Your task to perform on an android device: Show me popular videos on Youtube Image 0: 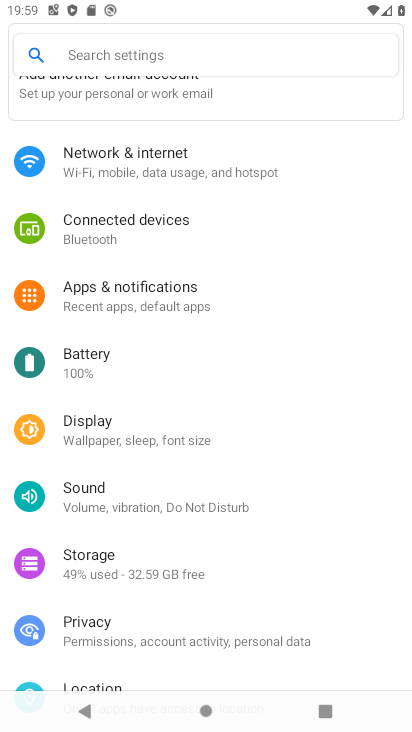
Step 0: press home button
Your task to perform on an android device: Show me popular videos on Youtube Image 1: 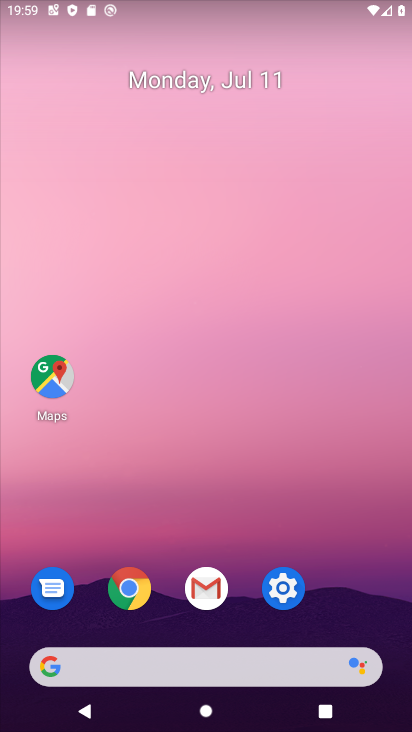
Step 1: drag from (250, 694) to (216, 222)
Your task to perform on an android device: Show me popular videos on Youtube Image 2: 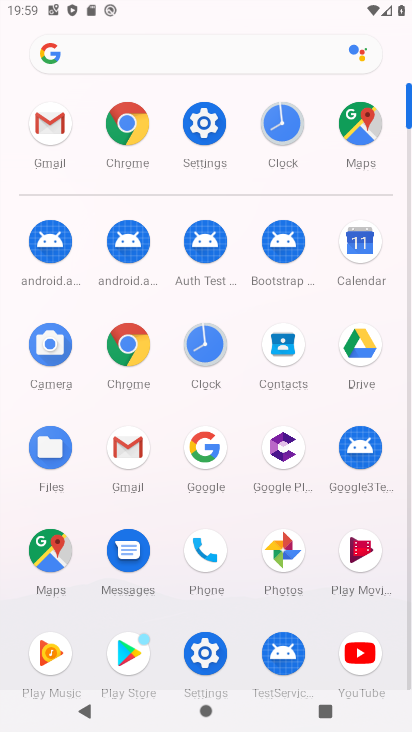
Step 2: click (349, 657)
Your task to perform on an android device: Show me popular videos on Youtube Image 3: 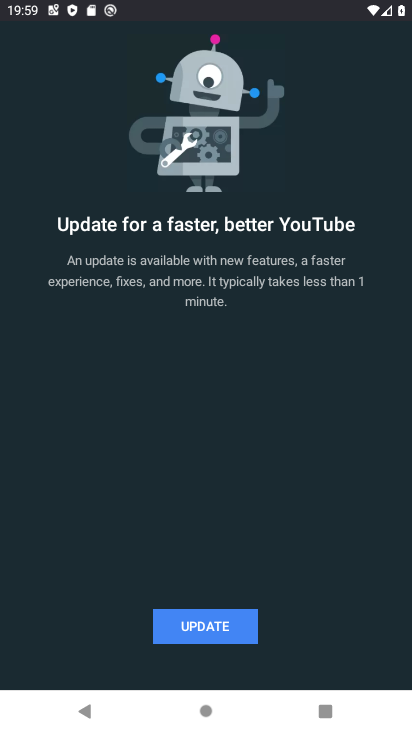
Step 3: click (203, 627)
Your task to perform on an android device: Show me popular videos on Youtube Image 4: 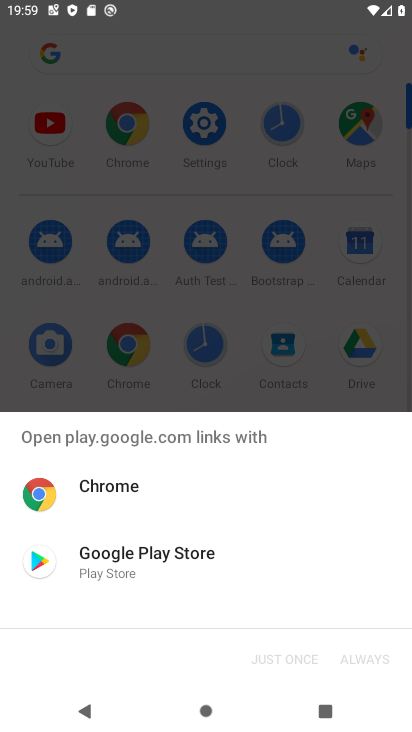
Step 4: click (160, 549)
Your task to perform on an android device: Show me popular videos on Youtube Image 5: 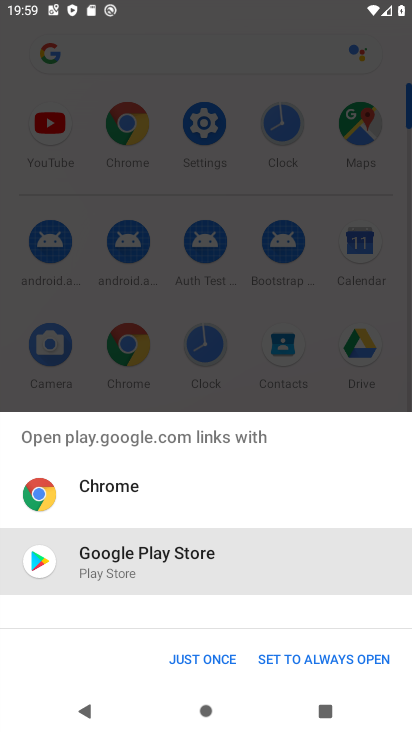
Step 5: click (192, 663)
Your task to perform on an android device: Show me popular videos on Youtube Image 6: 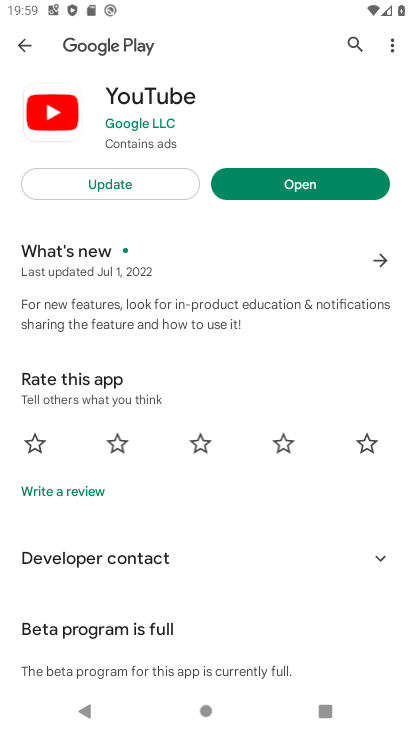
Step 6: click (107, 175)
Your task to perform on an android device: Show me popular videos on Youtube Image 7: 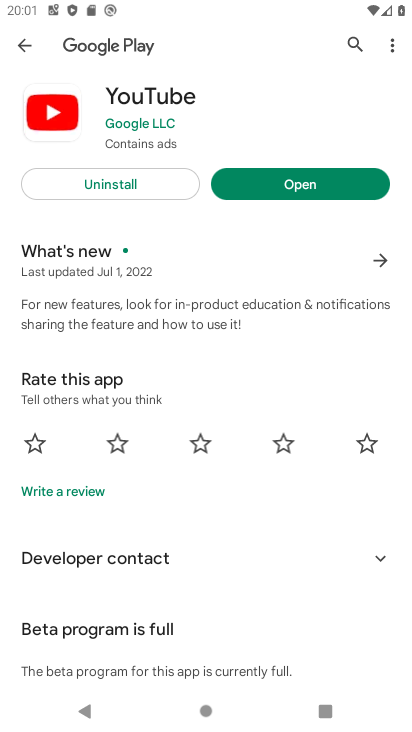
Step 7: click (331, 170)
Your task to perform on an android device: Show me popular videos on Youtube Image 8: 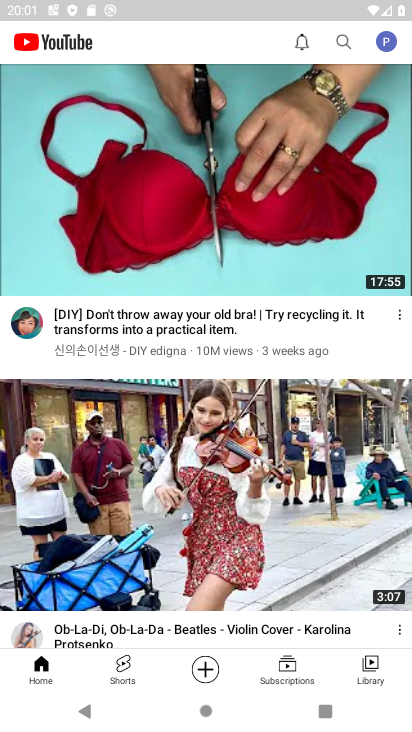
Step 8: click (345, 42)
Your task to perform on an android device: Show me popular videos on Youtube Image 9: 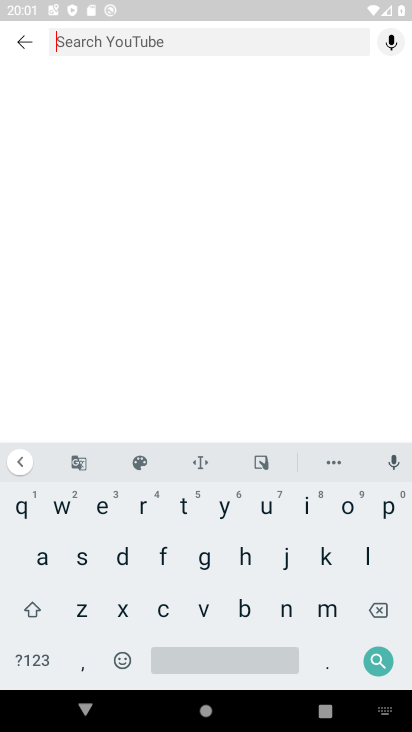
Step 9: click (380, 502)
Your task to perform on an android device: Show me popular videos on Youtube Image 10: 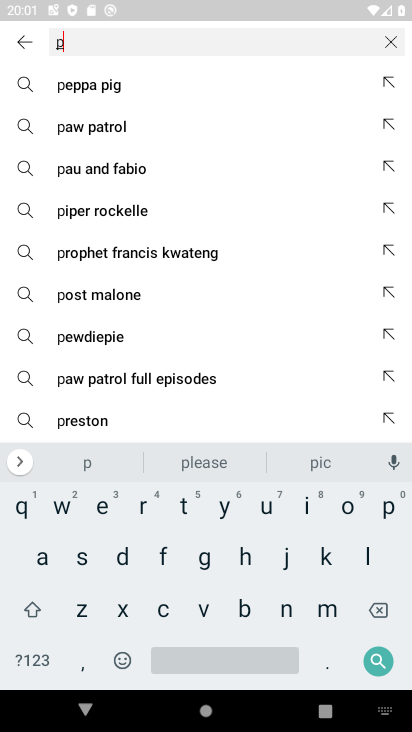
Step 10: click (346, 508)
Your task to perform on an android device: Show me popular videos on Youtube Image 11: 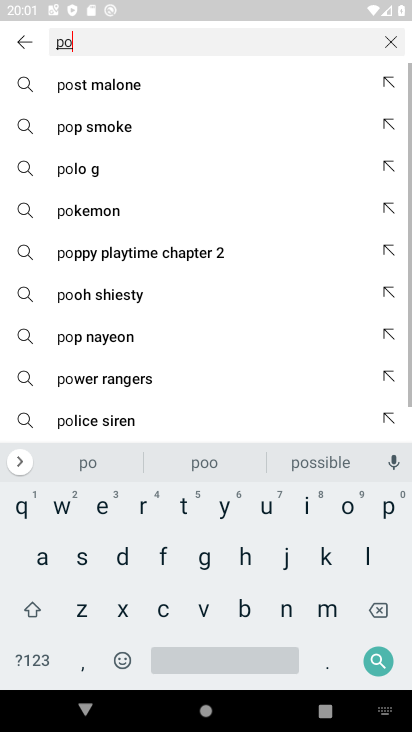
Step 11: click (389, 508)
Your task to perform on an android device: Show me popular videos on Youtube Image 12: 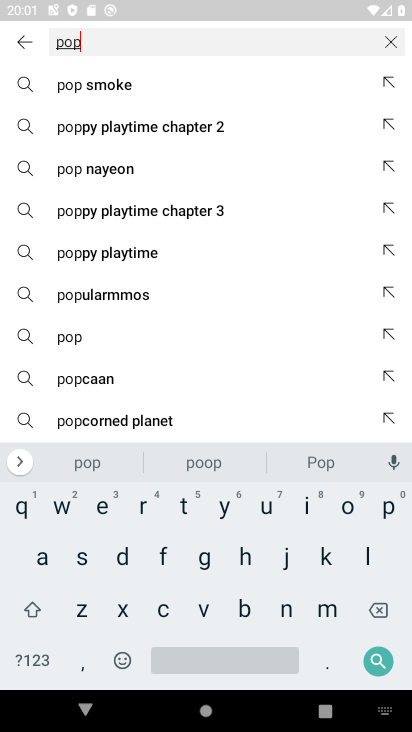
Step 12: click (264, 509)
Your task to perform on an android device: Show me popular videos on Youtube Image 13: 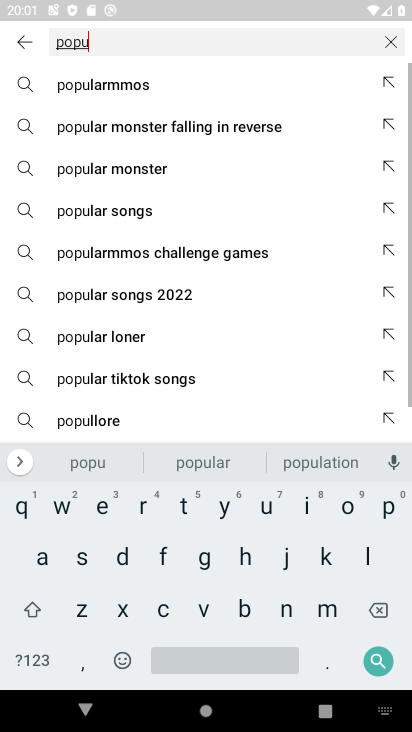
Step 13: click (207, 462)
Your task to perform on an android device: Show me popular videos on Youtube Image 14: 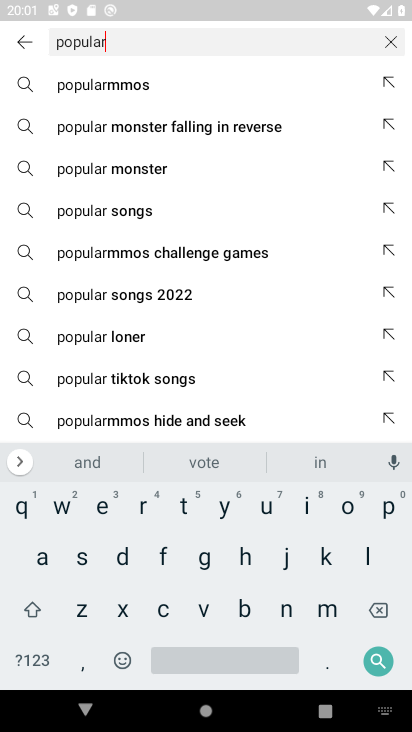
Step 14: click (200, 609)
Your task to perform on an android device: Show me popular videos on Youtube Image 15: 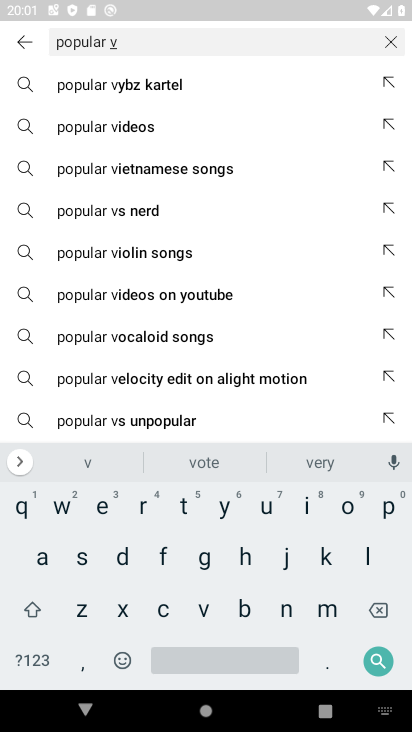
Step 15: click (118, 128)
Your task to perform on an android device: Show me popular videos on Youtube Image 16: 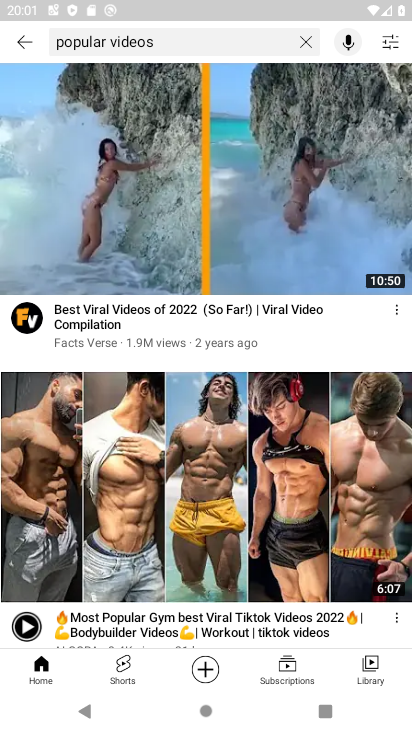
Step 16: task complete